Your task to perform on an android device: snooze an email in the gmail app Image 0: 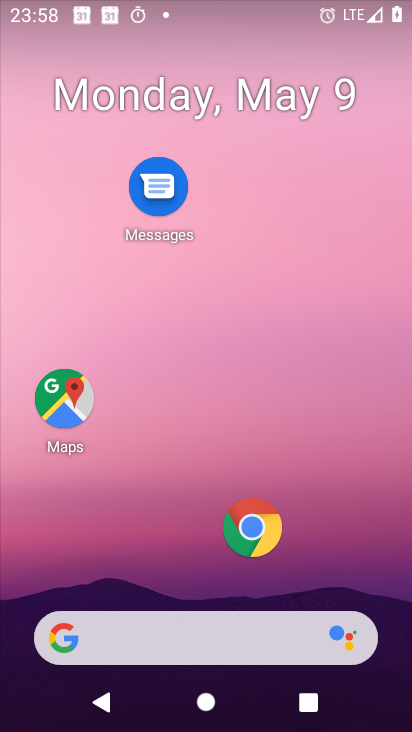
Step 0: drag from (169, 556) to (179, 86)
Your task to perform on an android device: snooze an email in the gmail app Image 1: 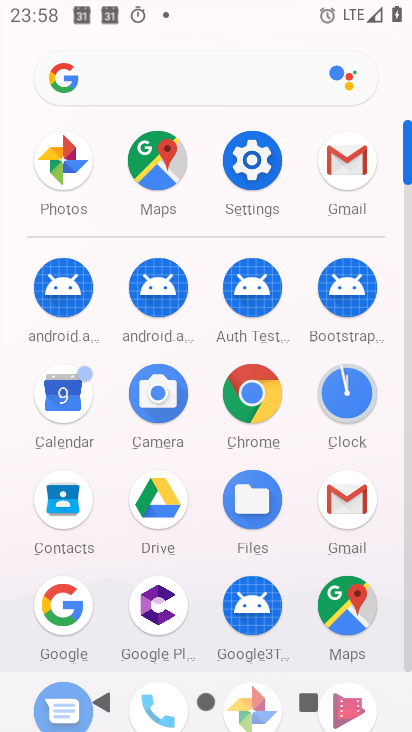
Step 1: click (348, 156)
Your task to perform on an android device: snooze an email in the gmail app Image 2: 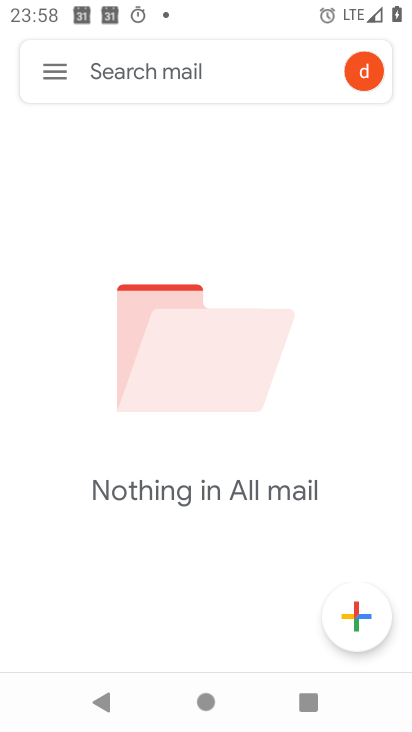
Step 2: click (50, 79)
Your task to perform on an android device: snooze an email in the gmail app Image 3: 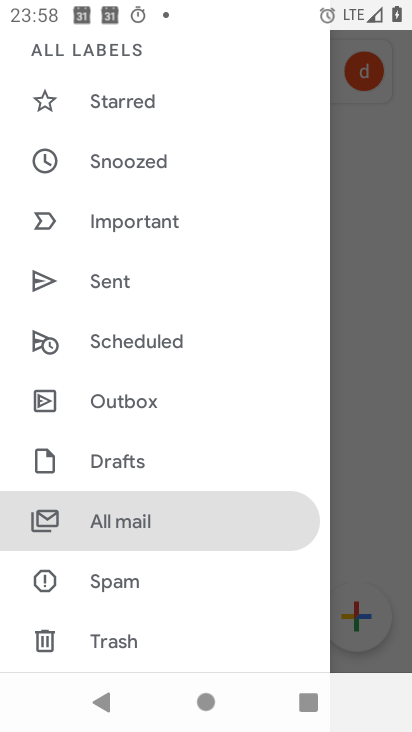
Step 3: click (162, 522)
Your task to perform on an android device: snooze an email in the gmail app Image 4: 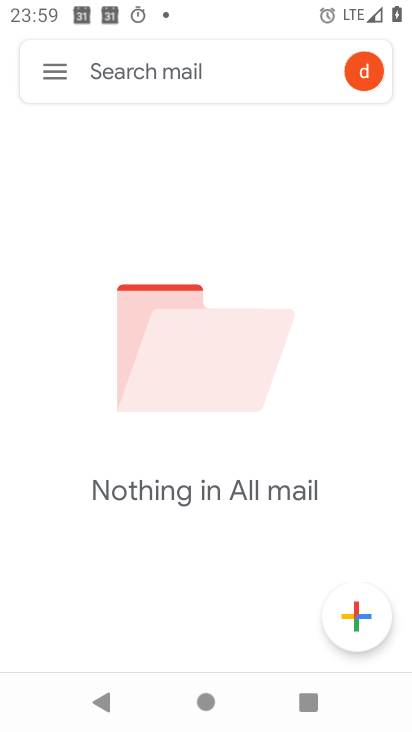
Step 4: task complete